Your task to perform on an android device: Open Google Chrome and click the shortcut for Amazon.com Image 0: 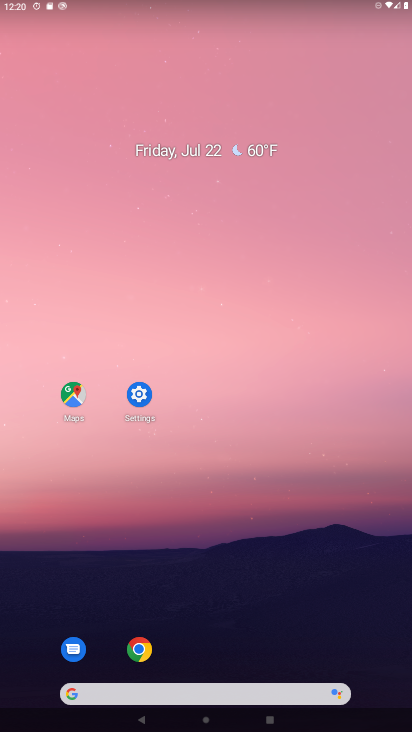
Step 0: click (136, 652)
Your task to perform on an android device: Open Google Chrome and click the shortcut for Amazon.com Image 1: 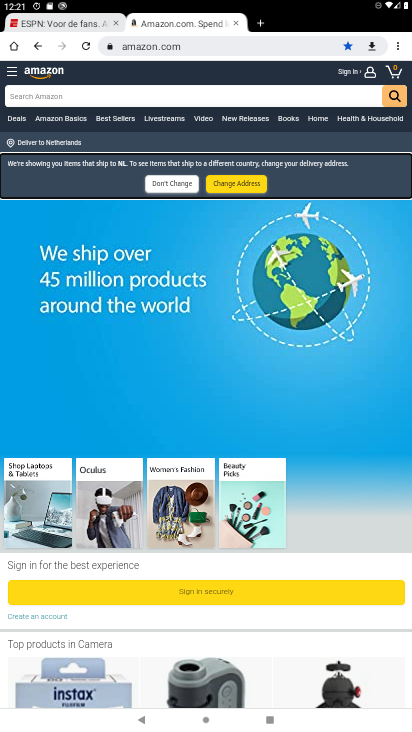
Step 1: click (396, 43)
Your task to perform on an android device: Open Google Chrome and click the shortcut for Amazon.com Image 2: 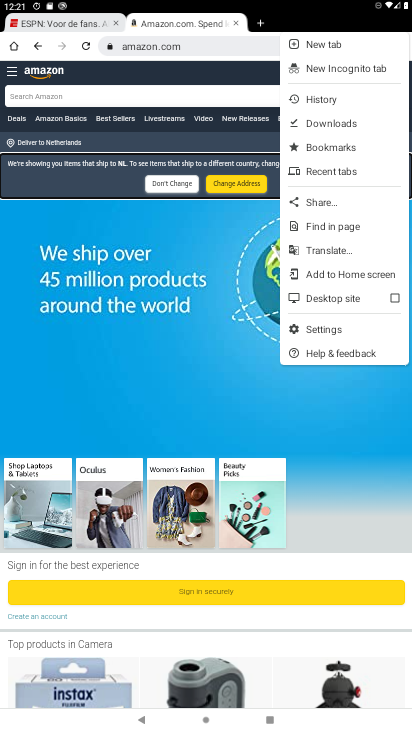
Step 2: click (313, 40)
Your task to perform on an android device: Open Google Chrome and click the shortcut for Amazon.com Image 3: 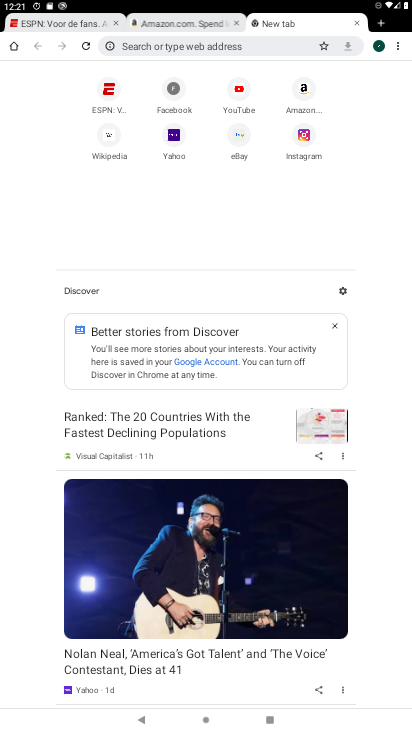
Step 3: click (298, 100)
Your task to perform on an android device: Open Google Chrome and click the shortcut for Amazon.com Image 4: 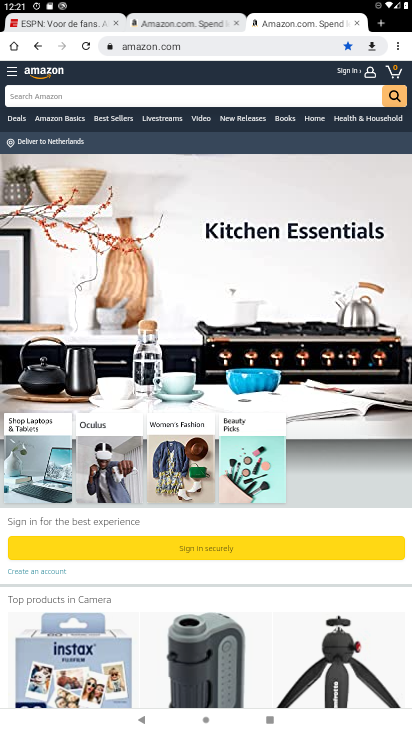
Step 4: task complete